Your task to perform on an android device: Empty the shopping cart on bestbuy. Add "logitech g933" to the cart on bestbuy Image 0: 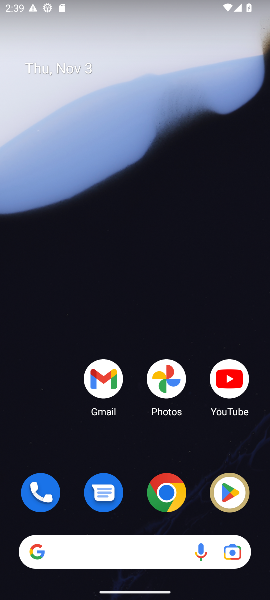
Step 0: click (166, 496)
Your task to perform on an android device: Empty the shopping cart on bestbuy. Add "logitech g933" to the cart on bestbuy Image 1: 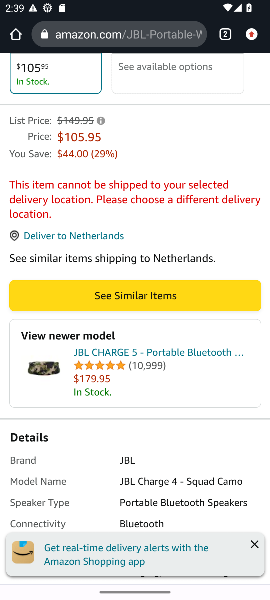
Step 1: click (76, 37)
Your task to perform on an android device: Empty the shopping cart on bestbuy. Add "logitech g933" to the cart on bestbuy Image 2: 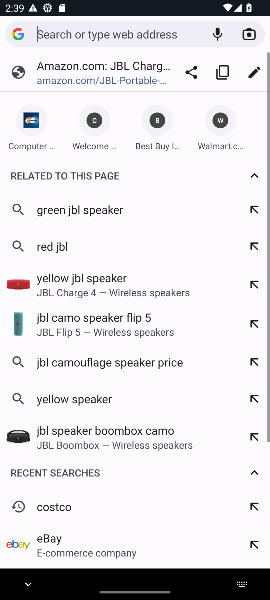
Step 2: type "bestbuy"
Your task to perform on an android device: Empty the shopping cart on bestbuy. Add "logitech g933" to the cart on bestbuy Image 3: 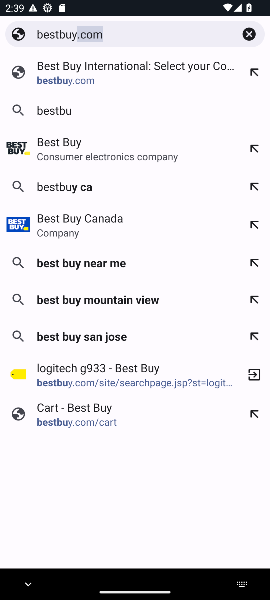
Step 3: type ""
Your task to perform on an android device: Empty the shopping cart on bestbuy. Add "logitech g933" to the cart on bestbuy Image 4: 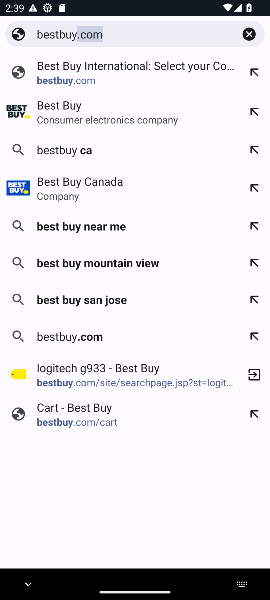
Step 4: click (96, 77)
Your task to perform on an android device: Empty the shopping cart on bestbuy. Add "logitech g933" to the cart on bestbuy Image 5: 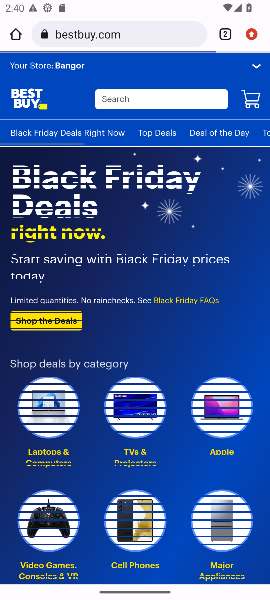
Step 5: click (119, 103)
Your task to perform on an android device: Empty the shopping cart on bestbuy. Add "logitech g933" to the cart on bestbuy Image 6: 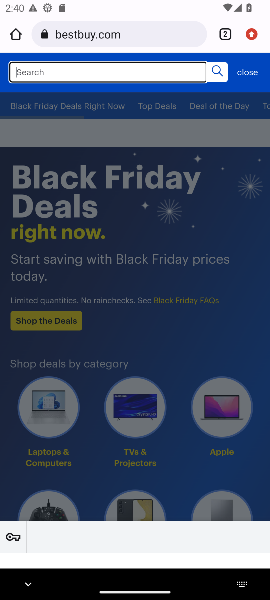
Step 6: click (240, 160)
Your task to perform on an android device: Empty the shopping cart on bestbuy. Add "logitech g933" to the cart on bestbuy Image 7: 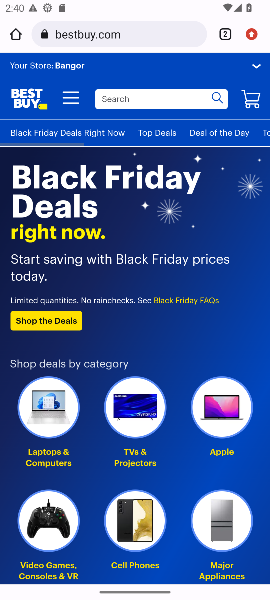
Step 7: click (254, 107)
Your task to perform on an android device: Empty the shopping cart on bestbuy. Add "logitech g933" to the cart on bestbuy Image 8: 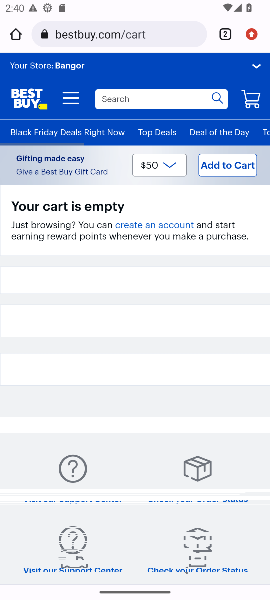
Step 8: click (175, 100)
Your task to perform on an android device: Empty the shopping cart on bestbuy. Add "logitech g933" to the cart on bestbuy Image 9: 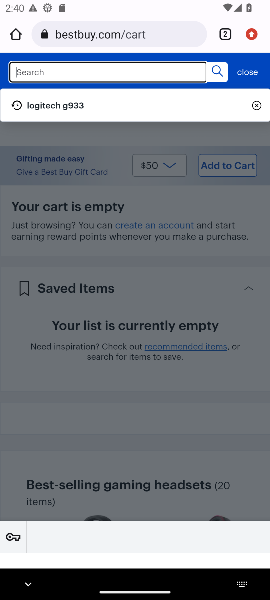
Step 9: type "logitech g933"
Your task to perform on an android device: Empty the shopping cart on bestbuy. Add "logitech g933" to the cart on bestbuy Image 10: 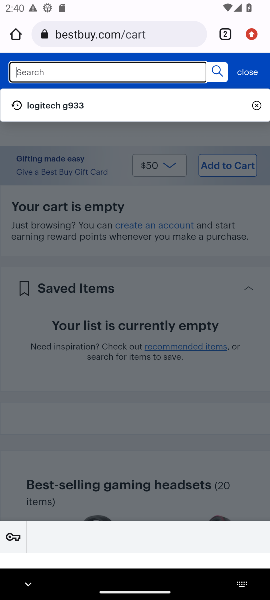
Step 10: type ""
Your task to perform on an android device: Empty the shopping cart on bestbuy. Add "logitech g933" to the cart on bestbuy Image 11: 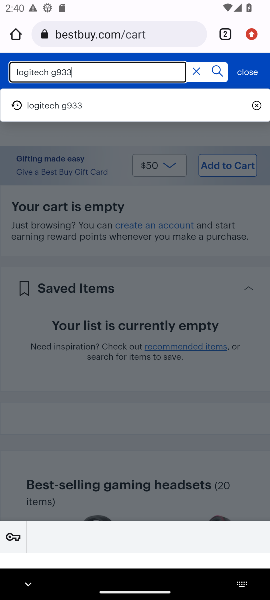
Step 11: click (215, 73)
Your task to perform on an android device: Empty the shopping cart on bestbuy. Add "logitech g933" to the cart on bestbuy Image 12: 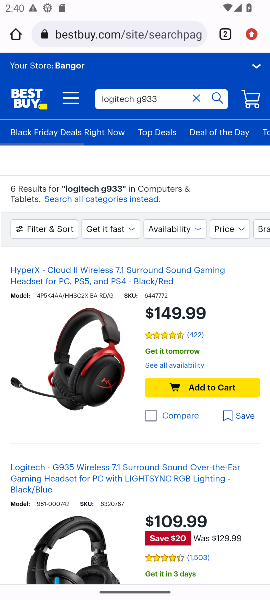
Step 12: drag from (130, 530) to (194, 163)
Your task to perform on an android device: Empty the shopping cart on bestbuy. Add "logitech g933" to the cart on bestbuy Image 13: 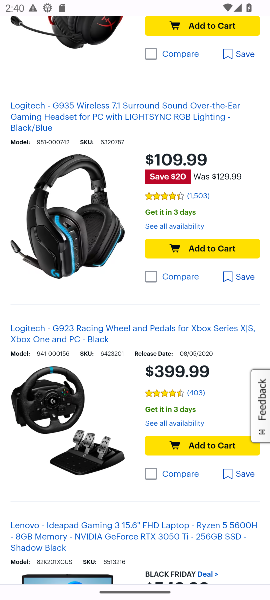
Step 13: drag from (106, 491) to (152, 127)
Your task to perform on an android device: Empty the shopping cart on bestbuy. Add "logitech g933" to the cart on bestbuy Image 14: 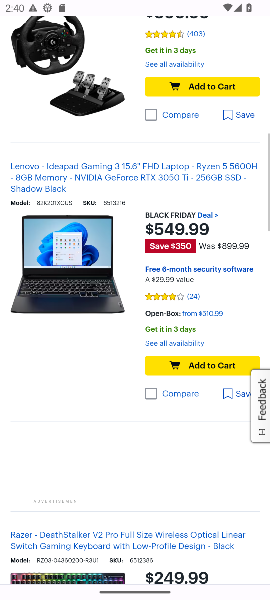
Step 14: drag from (156, 501) to (215, 139)
Your task to perform on an android device: Empty the shopping cart on bestbuy. Add "logitech g933" to the cart on bestbuy Image 15: 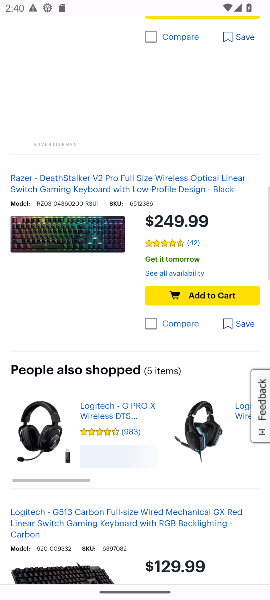
Step 15: drag from (160, 493) to (186, 153)
Your task to perform on an android device: Empty the shopping cart on bestbuy. Add "logitech g933" to the cart on bestbuy Image 16: 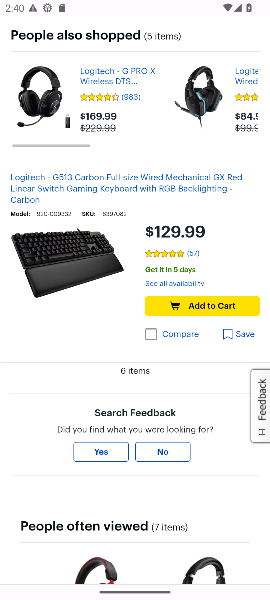
Step 16: drag from (160, 459) to (187, 211)
Your task to perform on an android device: Empty the shopping cart on bestbuy. Add "logitech g933" to the cart on bestbuy Image 17: 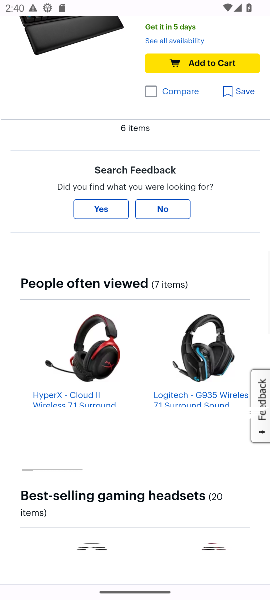
Step 17: drag from (172, 459) to (203, 232)
Your task to perform on an android device: Empty the shopping cart on bestbuy. Add "logitech g933" to the cart on bestbuy Image 18: 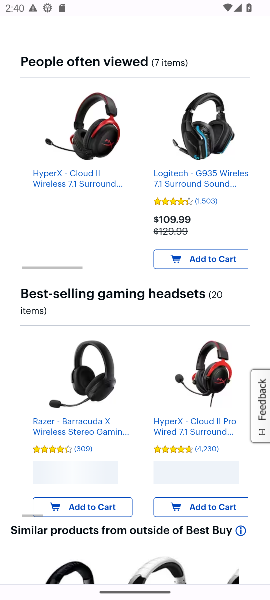
Step 18: drag from (174, 459) to (178, 210)
Your task to perform on an android device: Empty the shopping cart on bestbuy. Add "logitech g933" to the cart on bestbuy Image 19: 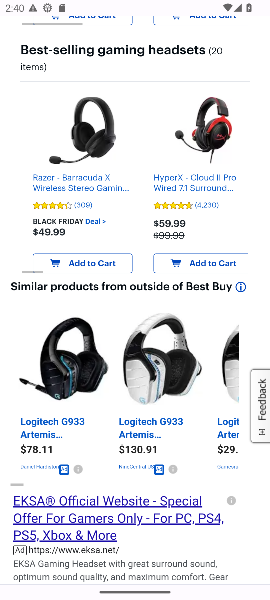
Step 19: click (156, 430)
Your task to perform on an android device: Empty the shopping cart on bestbuy. Add "logitech g933" to the cart on bestbuy Image 20: 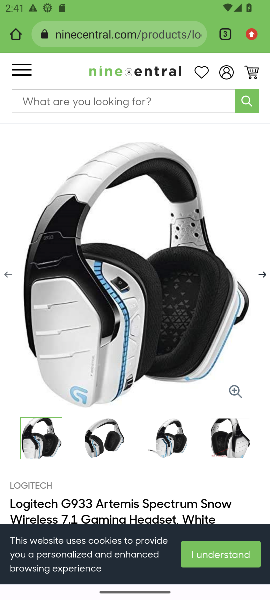
Step 20: drag from (94, 481) to (106, 272)
Your task to perform on an android device: Empty the shopping cart on bestbuy. Add "logitech g933" to the cart on bestbuy Image 21: 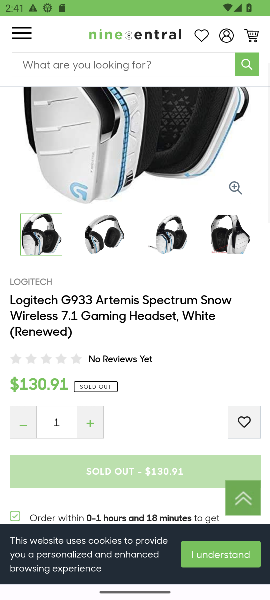
Step 21: click (195, 564)
Your task to perform on an android device: Empty the shopping cart on bestbuy. Add "logitech g933" to the cart on bestbuy Image 22: 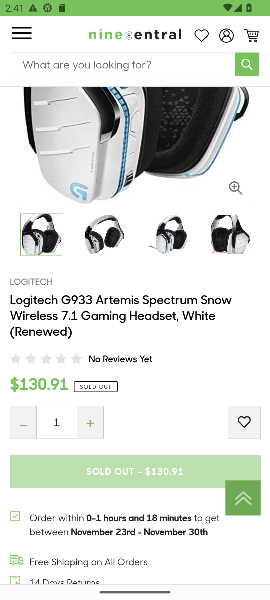
Step 22: drag from (151, 395) to (152, 299)
Your task to perform on an android device: Empty the shopping cart on bestbuy. Add "logitech g933" to the cart on bestbuy Image 23: 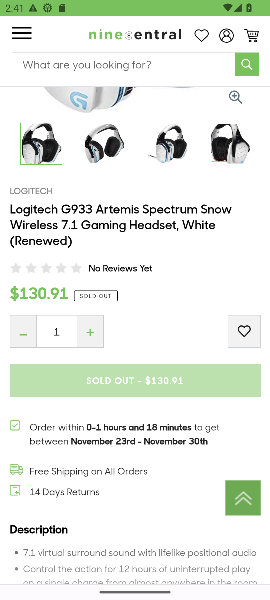
Step 23: press back button
Your task to perform on an android device: Empty the shopping cart on bestbuy. Add "logitech g933" to the cart on bestbuy Image 24: 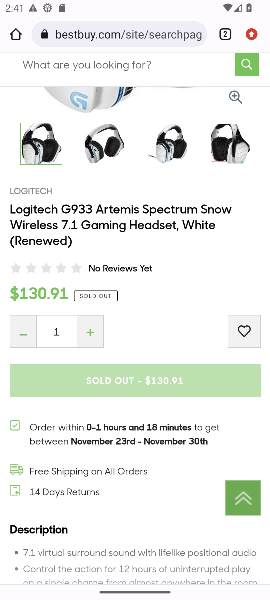
Step 24: drag from (214, 256) to (198, 318)
Your task to perform on an android device: Empty the shopping cart on bestbuy. Add "logitech g933" to the cart on bestbuy Image 25: 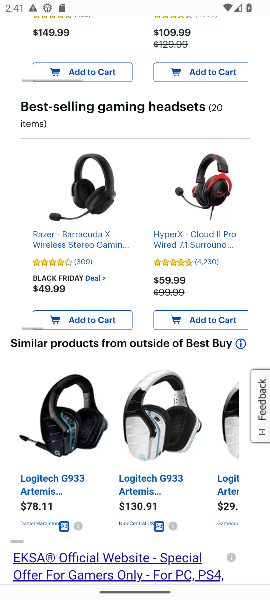
Step 25: click (63, 456)
Your task to perform on an android device: Empty the shopping cart on bestbuy. Add "logitech g933" to the cart on bestbuy Image 26: 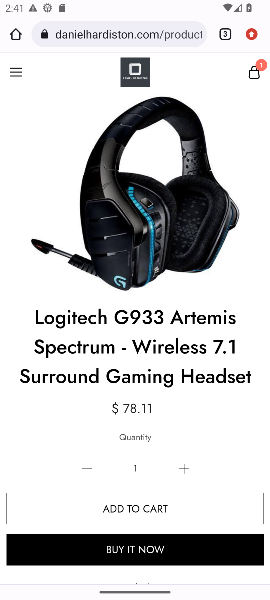
Step 26: click (157, 514)
Your task to perform on an android device: Empty the shopping cart on bestbuy. Add "logitech g933" to the cart on bestbuy Image 27: 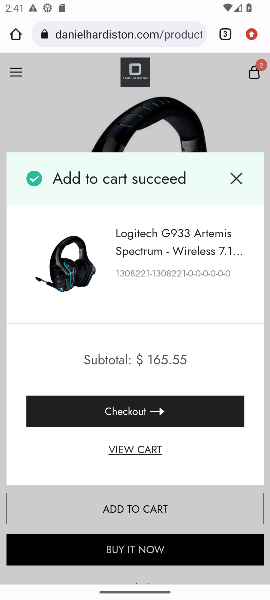
Step 27: click (136, 414)
Your task to perform on an android device: Empty the shopping cart on bestbuy. Add "logitech g933" to the cart on bestbuy Image 28: 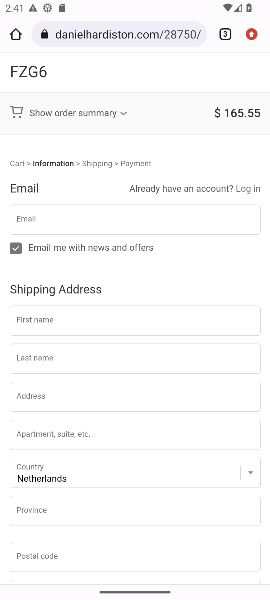
Step 28: task complete